Your task to perform on an android device: find photos in the google photos app Image 0: 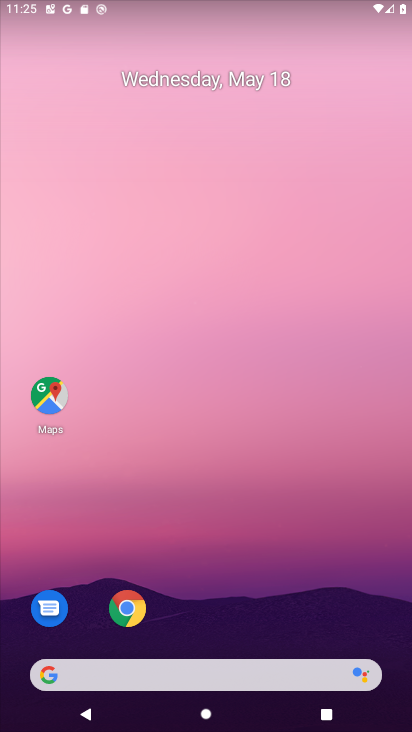
Step 0: drag from (221, 548) to (214, 219)
Your task to perform on an android device: find photos in the google photos app Image 1: 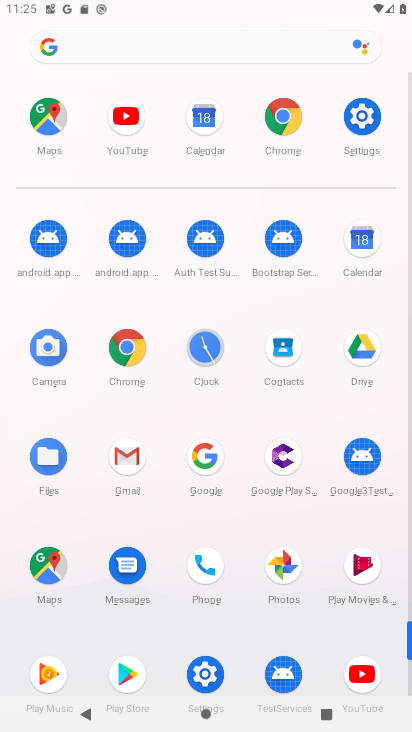
Step 1: click (286, 570)
Your task to perform on an android device: find photos in the google photos app Image 2: 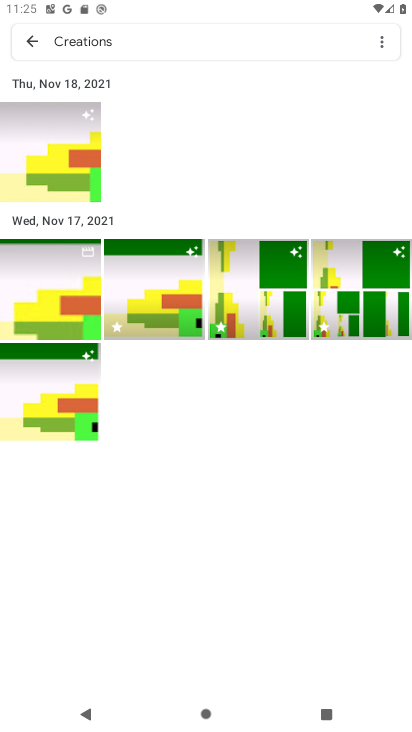
Step 2: task complete